Your task to perform on an android device: Open Youtube and go to the subscriptions tab Image 0: 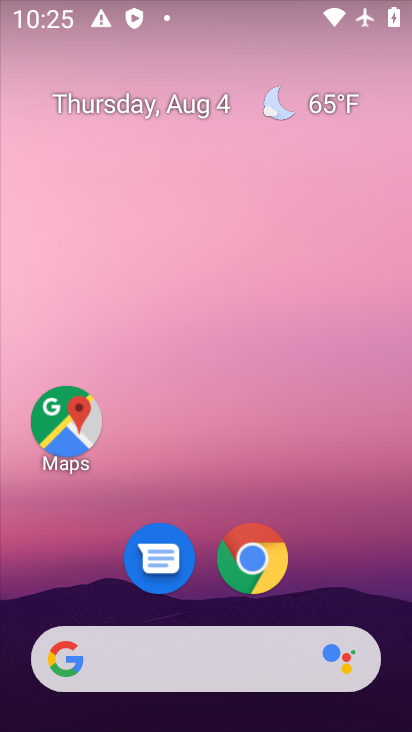
Step 0: drag from (331, 573) to (270, 99)
Your task to perform on an android device: Open Youtube and go to the subscriptions tab Image 1: 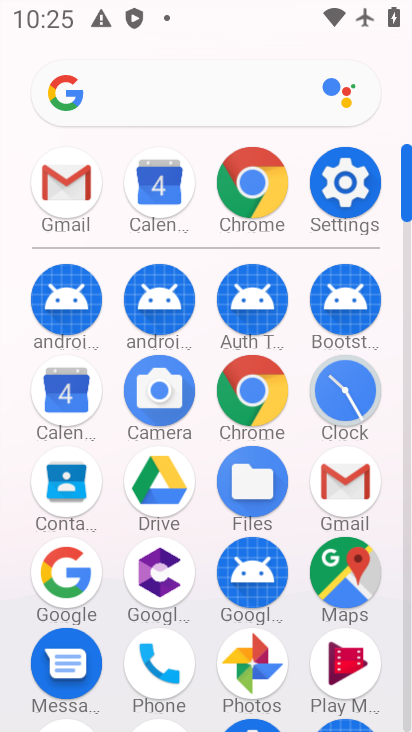
Step 1: drag from (300, 621) to (303, 256)
Your task to perform on an android device: Open Youtube and go to the subscriptions tab Image 2: 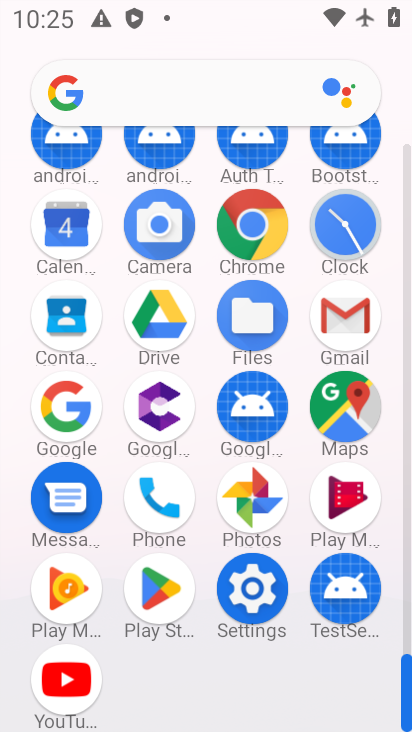
Step 2: click (68, 678)
Your task to perform on an android device: Open Youtube and go to the subscriptions tab Image 3: 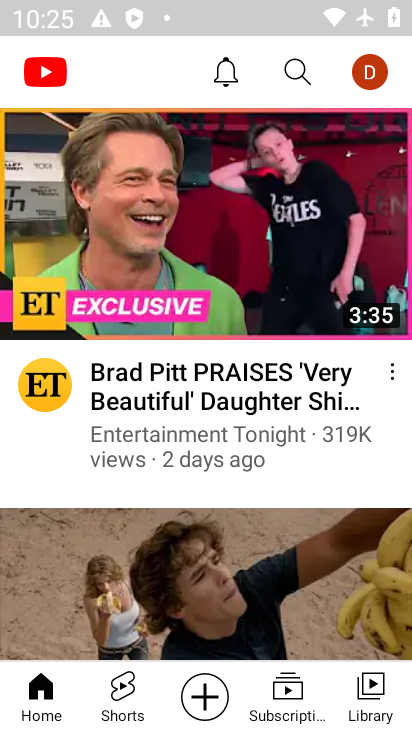
Step 3: click (286, 701)
Your task to perform on an android device: Open Youtube and go to the subscriptions tab Image 4: 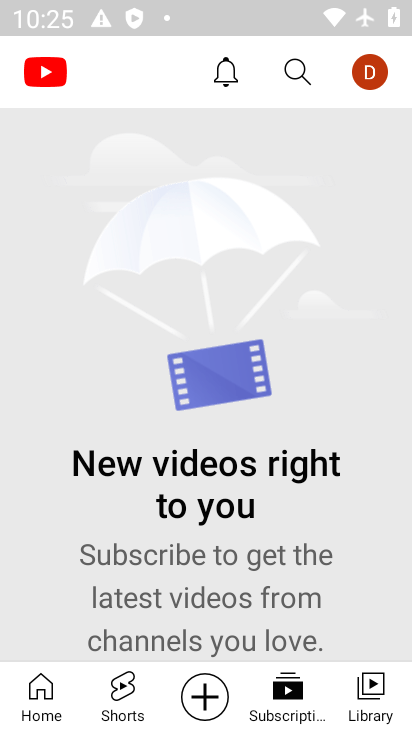
Step 4: task complete